Your task to perform on an android device: toggle wifi Image 0: 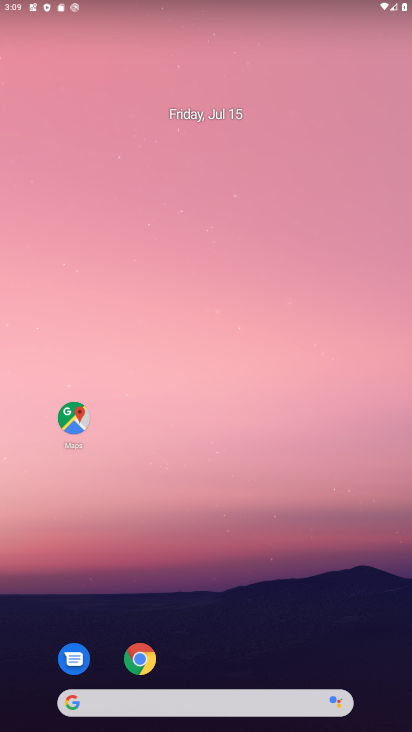
Step 0: drag from (21, 689) to (250, 251)
Your task to perform on an android device: toggle wifi Image 1: 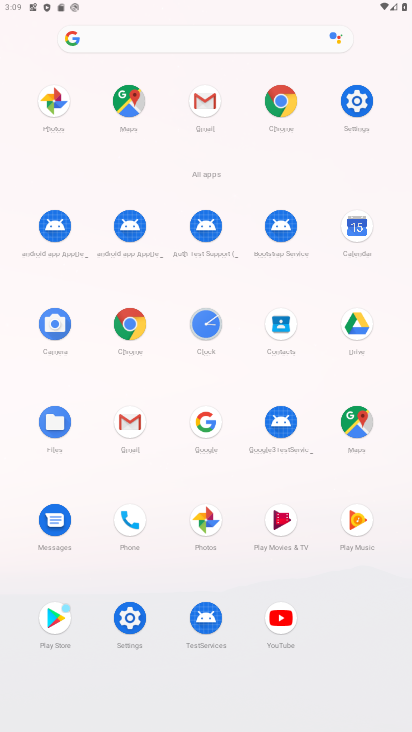
Step 1: click (140, 624)
Your task to perform on an android device: toggle wifi Image 2: 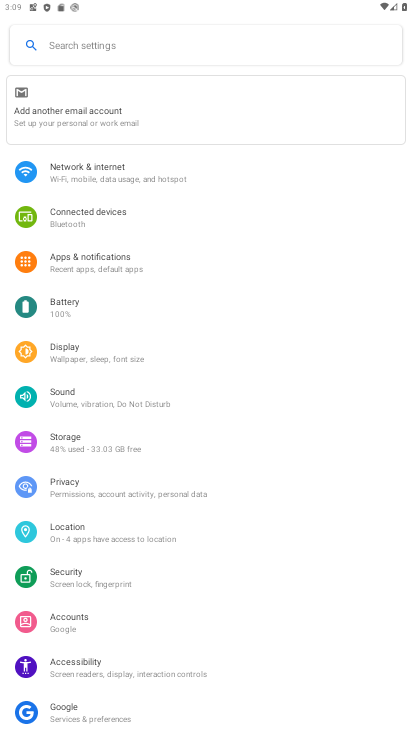
Step 2: click (131, 160)
Your task to perform on an android device: toggle wifi Image 3: 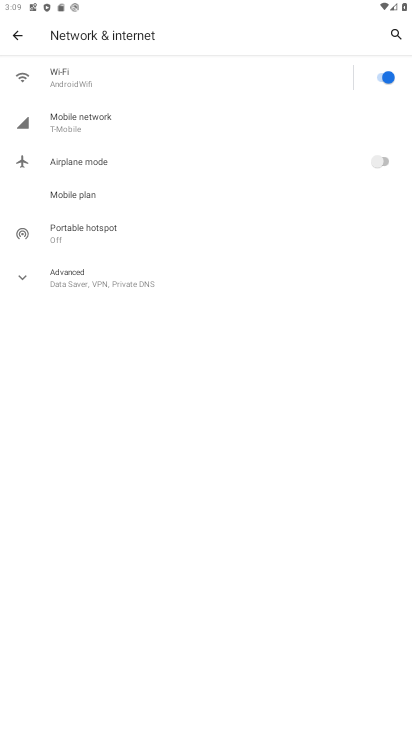
Step 3: click (71, 84)
Your task to perform on an android device: toggle wifi Image 4: 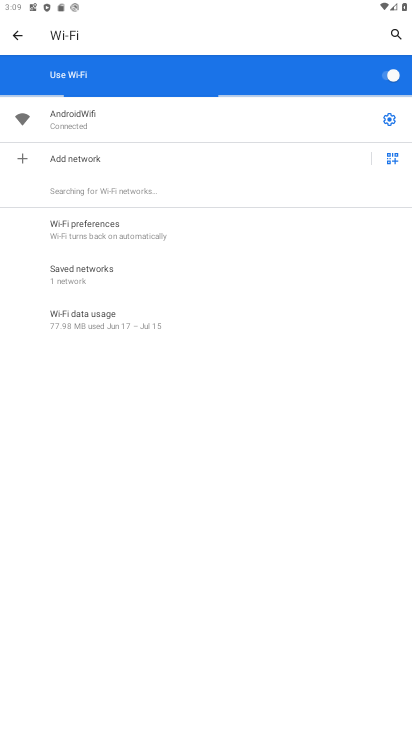
Step 4: task complete